Your task to perform on an android device: Open the Play Movies app and select the watchlist tab. Image 0: 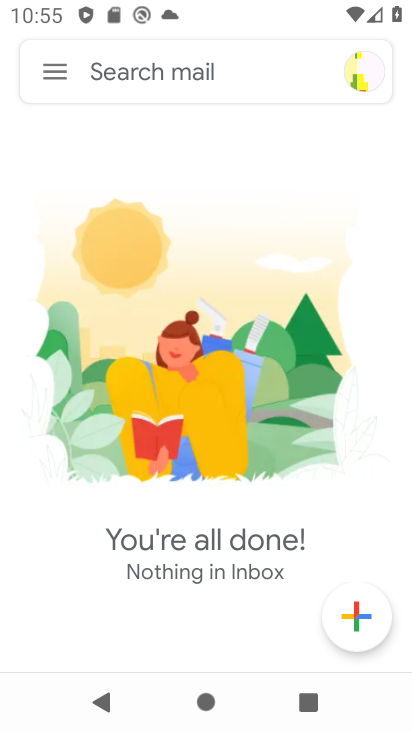
Step 0: press home button
Your task to perform on an android device: Open the Play Movies app and select the watchlist tab. Image 1: 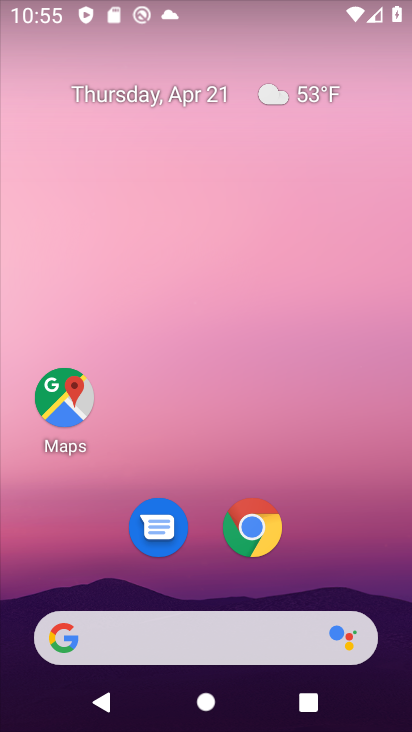
Step 1: drag from (350, 545) to (366, 107)
Your task to perform on an android device: Open the Play Movies app and select the watchlist tab. Image 2: 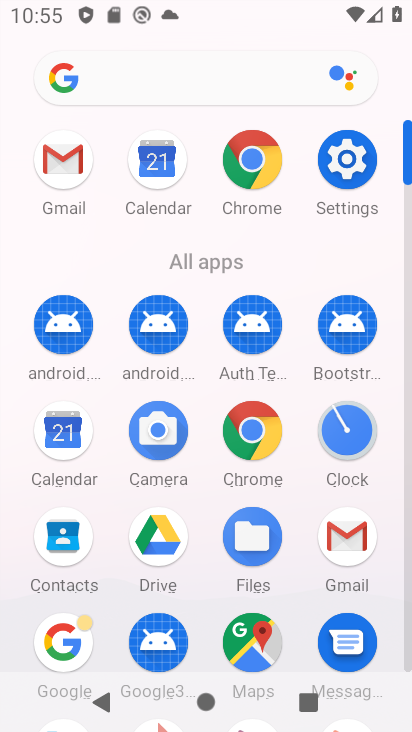
Step 2: drag from (392, 534) to (401, 177)
Your task to perform on an android device: Open the Play Movies app and select the watchlist tab. Image 3: 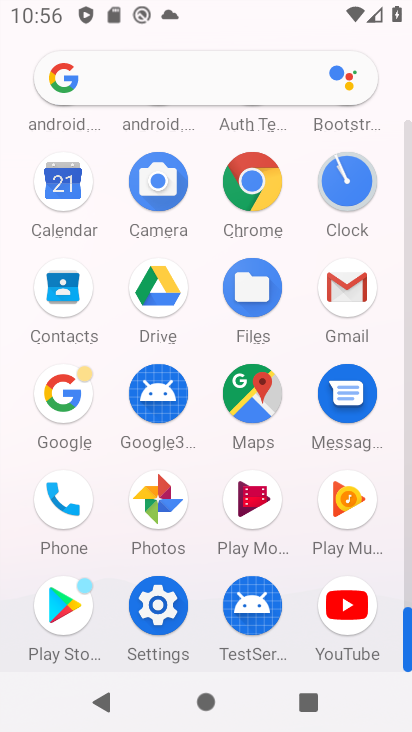
Step 3: click (246, 508)
Your task to perform on an android device: Open the Play Movies app and select the watchlist tab. Image 4: 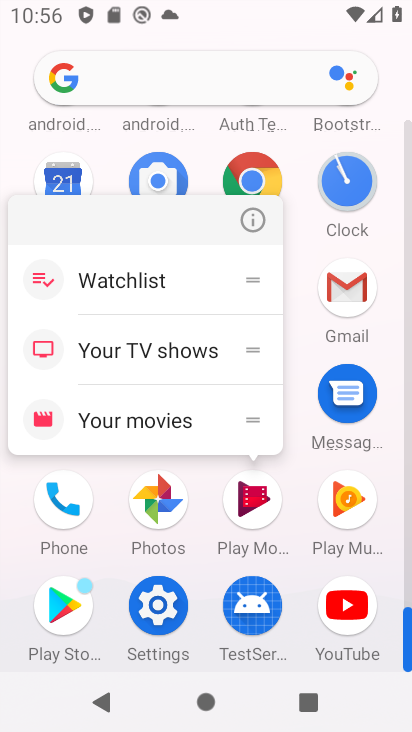
Step 4: click (246, 508)
Your task to perform on an android device: Open the Play Movies app and select the watchlist tab. Image 5: 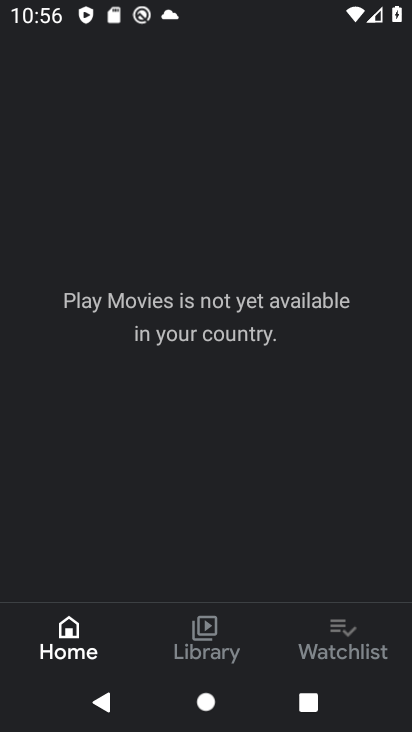
Step 5: click (347, 627)
Your task to perform on an android device: Open the Play Movies app and select the watchlist tab. Image 6: 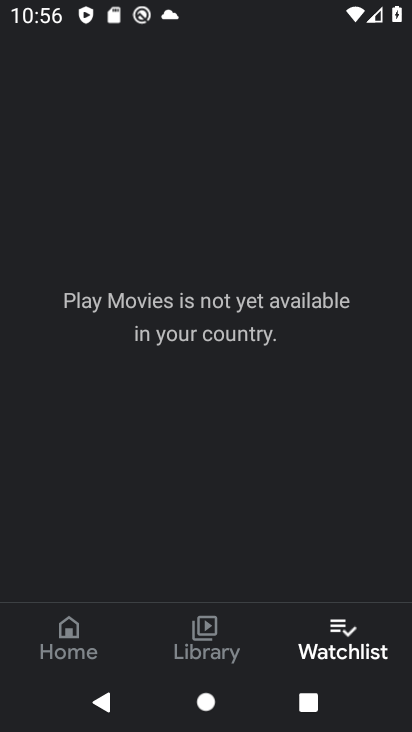
Step 6: task complete